Your task to perform on an android device: change your default location settings in chrome Image 0: 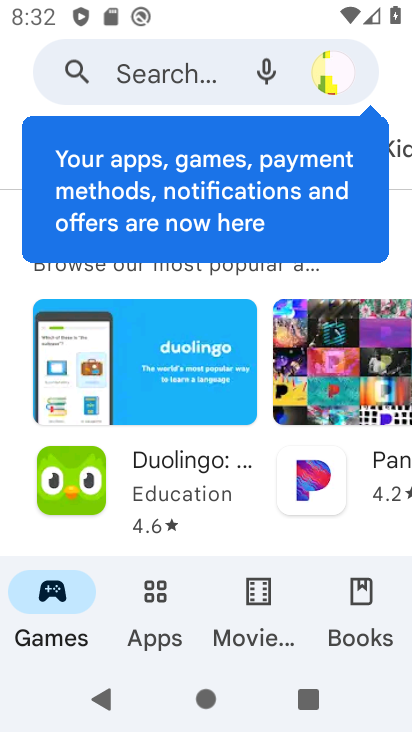
Step 0: press home button
Your task to perform on an android device: change your default location settings in chrome Image 1: 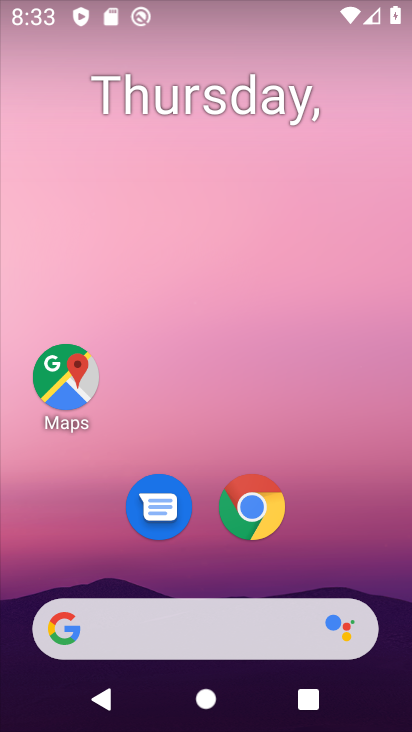
Step 1: drag from (217, 559) to (239, 21)
Your task to perform on an android device: change your default location settings in chrome Image 2: 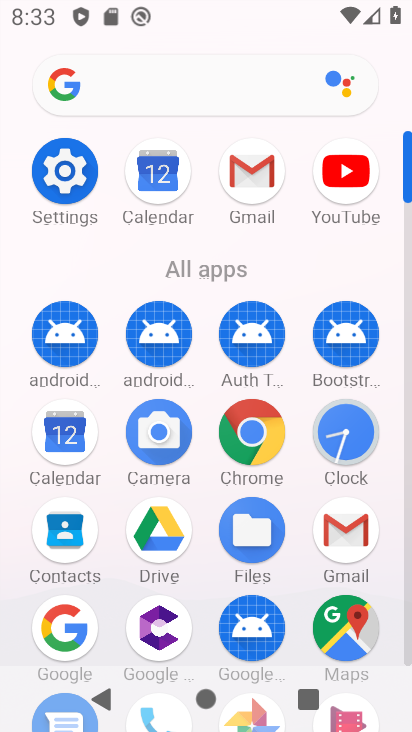
Step 2: click (245, 448)
Your task to perform on an android device: change your default location settings in chrome Image 3: 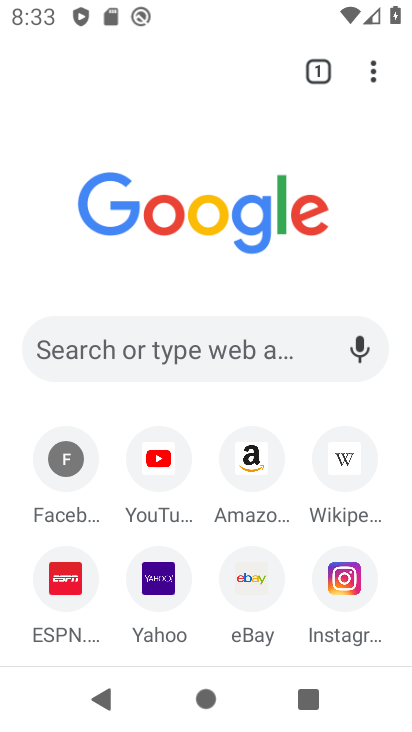
Step 3: click (382, 87)
Your task to perform on an android device: change your default location settings in chrome Image 4: 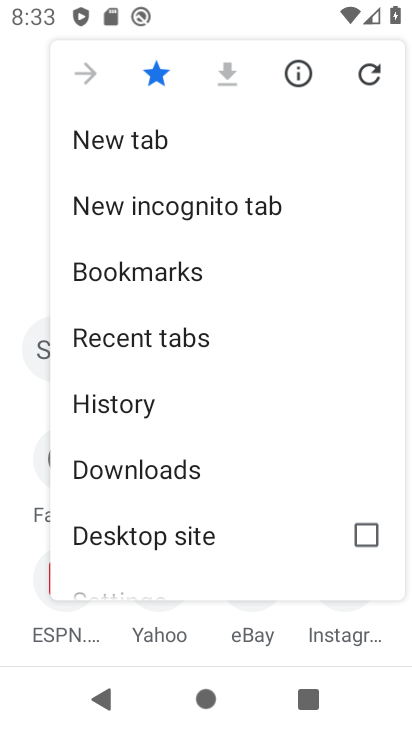
Step 4: drag from (183, 447) to (237, 102)
Your task to perform on an android device: change your default location settings in chrome Image 5: 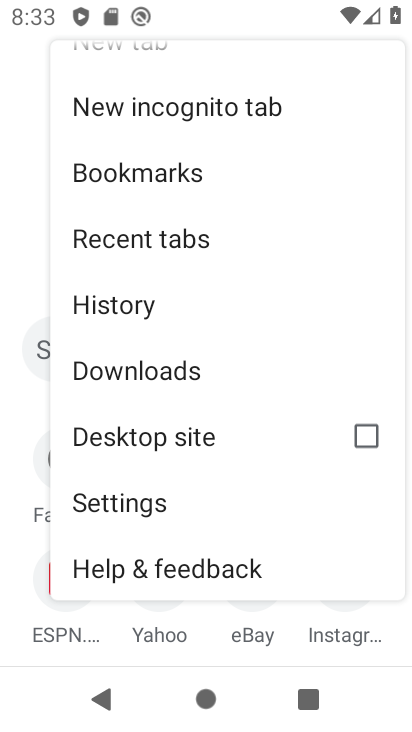
Step 5: click (141, 501)
Your task to perform on an android device: change your default location settings in chrome Image 6: 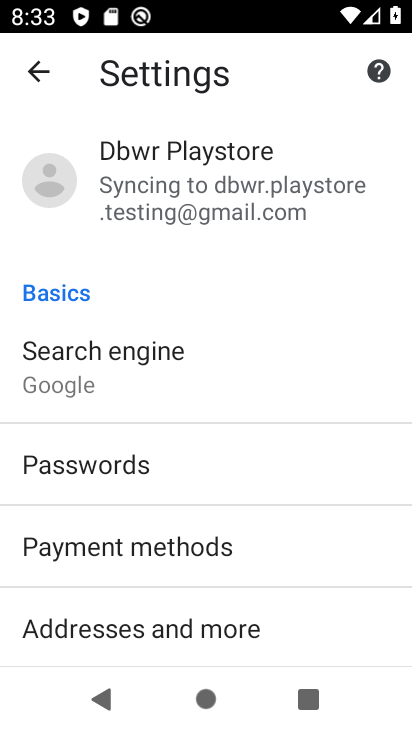
Step 6: drag from (167, 545) to (231, 316)
Your task to perform on an android device: change your default location settings in chrome Image 7: 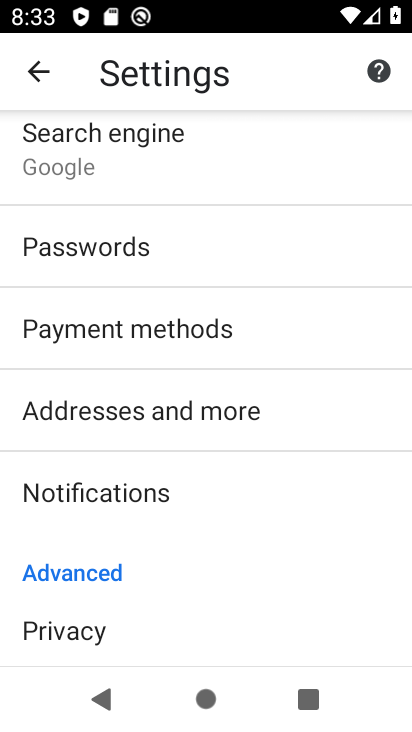
Step 7: drag from (79, 573) to (178, 42)
Your task to perform on an android device: change your default location settings in chrome Image 8: 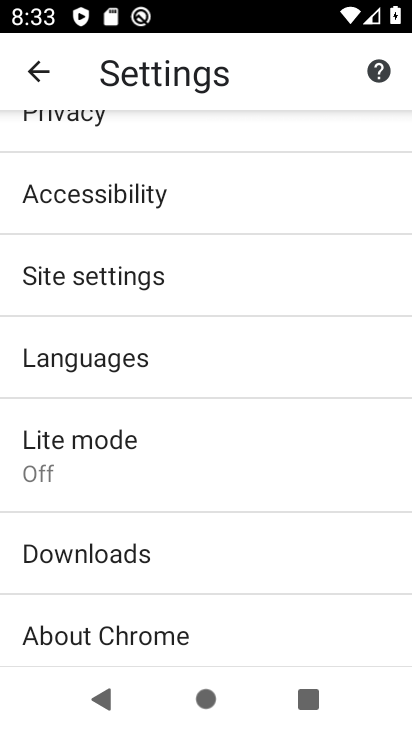
Step 8: click (97, 286)
Your task to perform on an android device: change your default location settings in chrome Image 9: 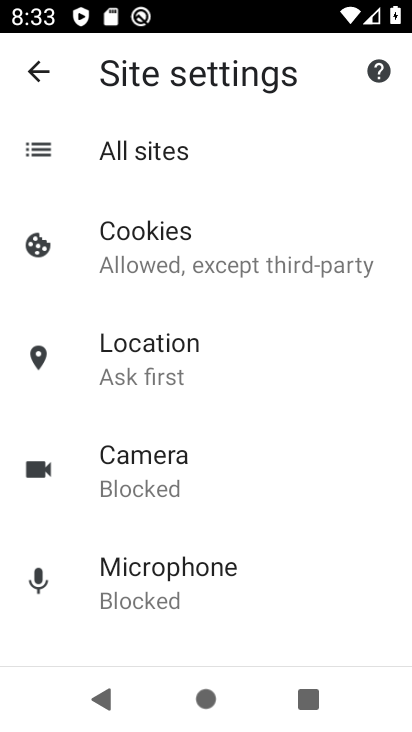
Step 9: click (171, 367)
Your task to perform on an android device: change your default location settings in chrome Image 10: 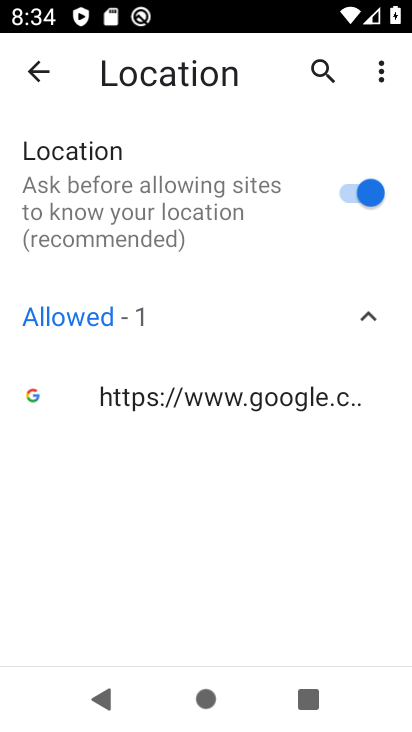
Step 10: click (342, 181)
Your task to perform on an android device: change your default location settings in chrome Image 11: 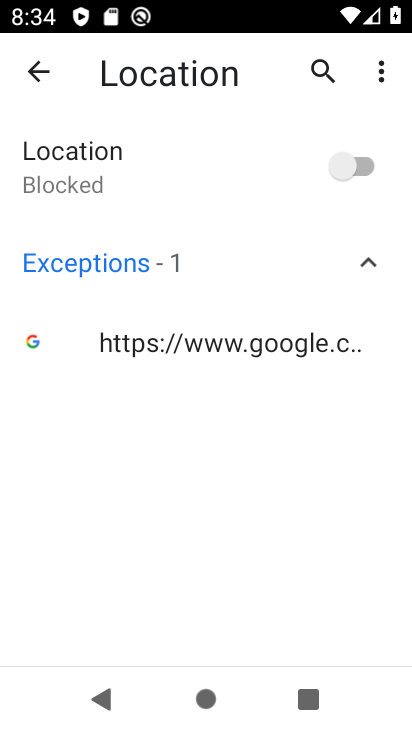
Step 11: task complete